Your task to perform on an android device: Open accessibility settings Image 0: 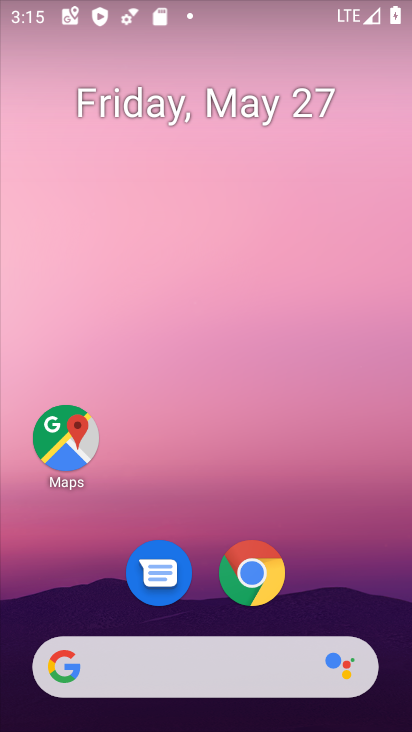
Step 0: drag from (313, 500) to (314, 21)
Your task to perform on an android device: Open accessibility settings Image 1: 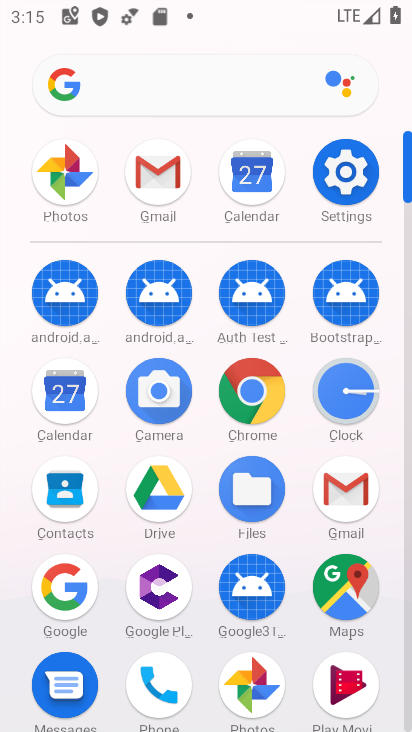
Step 1: click (334, 180)
Your task to perform on an android device: Open accessibility settings Image 2: 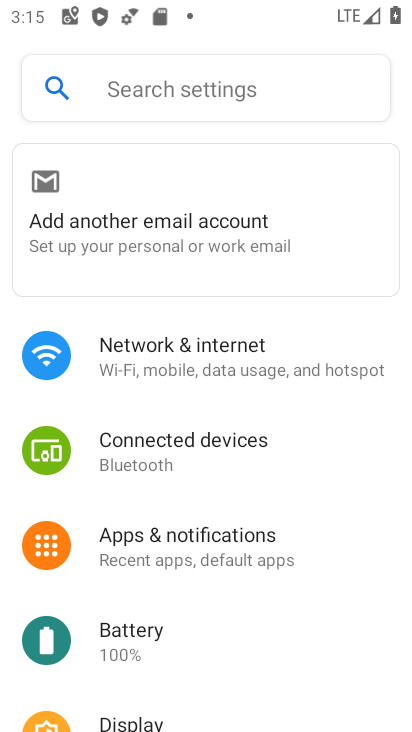
Step 2: drag from (220, 640) to (222, 171)
Your task to perform on an android device: Open accessibility settings Image 3: 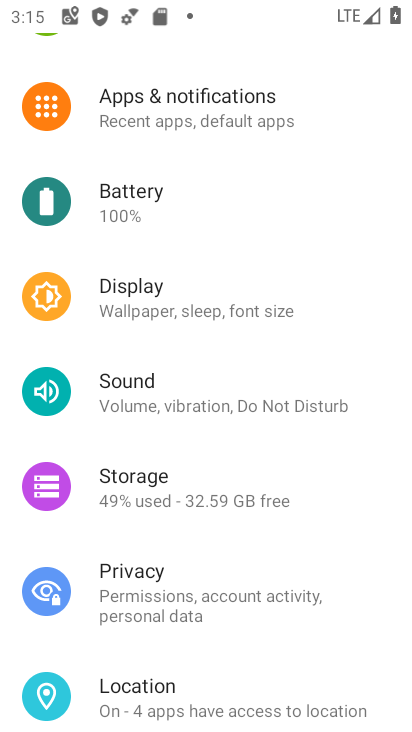
Step 3: drag from (258, 596) to (220, 274)
Your task to perform on an android device: Open accessibility settings Image 4: 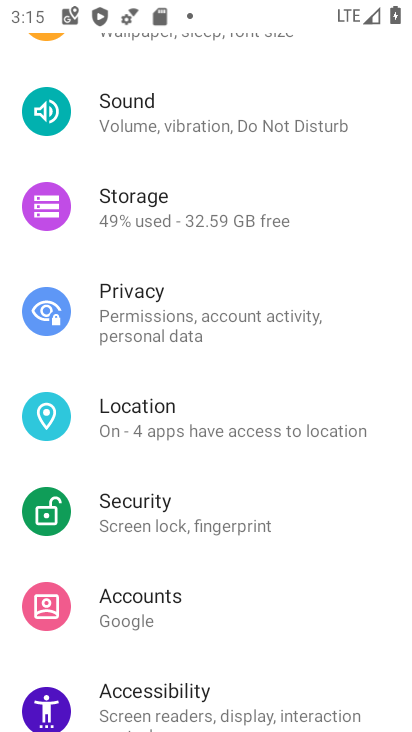
Step 4: click (223, 702)
Your task to perform on an android device: Open accessibility settings Image 5: 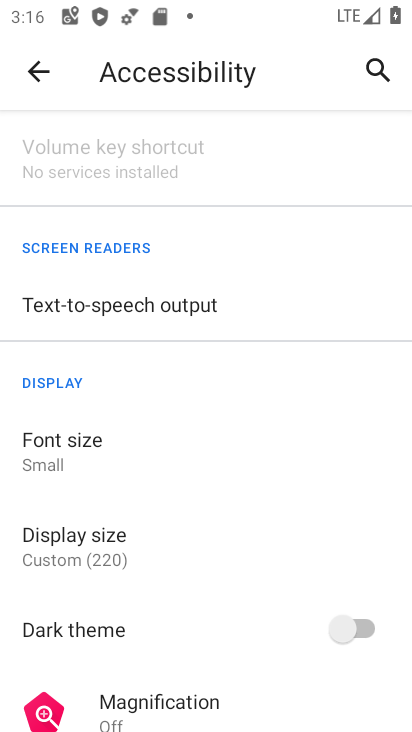
Step 5: task complete